Your task to perform on an android device: Open settings Image 0: 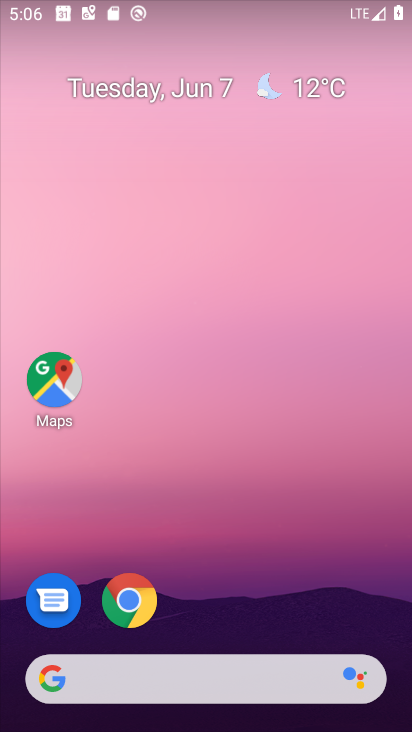
Step 0: drag from (318, 567) to (307, 152)
Your task to perform on an android device: Open settings Image 1: 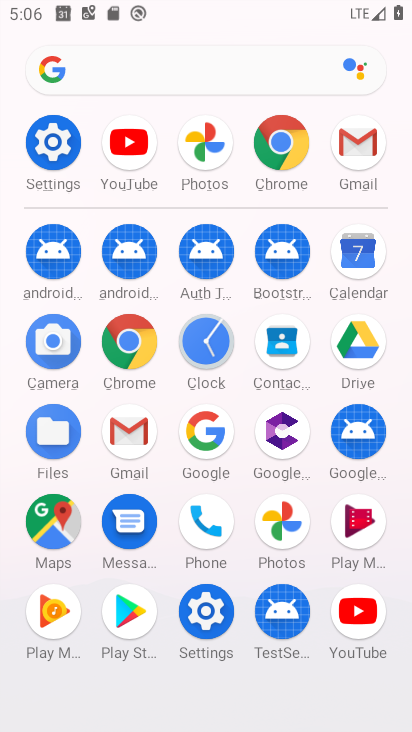
Step 1: click (62, 138)
Your task to perform on an android device: Open settings Image 2: 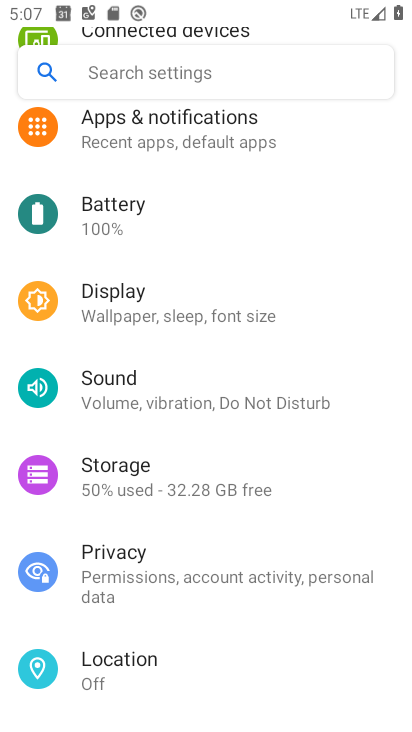
Step 2: task complete